Your task to perform on an android device: Go to Google maps Image 0: 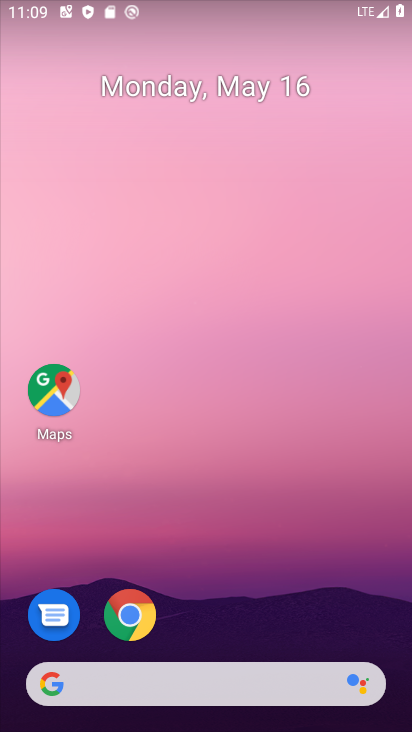
Step 0: drag from (268, 527) to (335, 0)
Your task to perform on an android device: Go to Google maps Image 1: 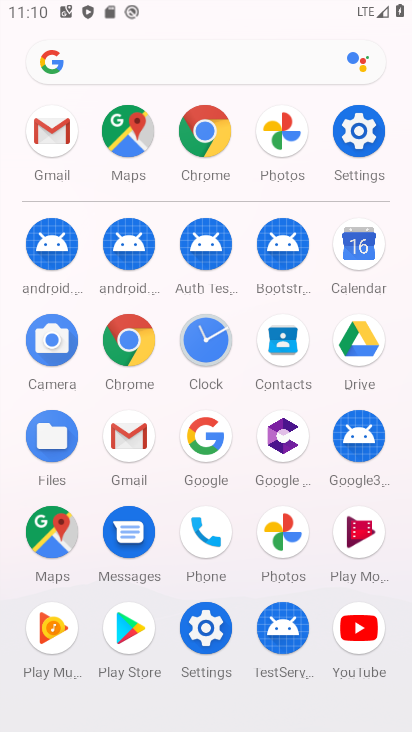
Step 1: click (63, 551)
Your task to perform on an android device: Go to Google maps Image 2: 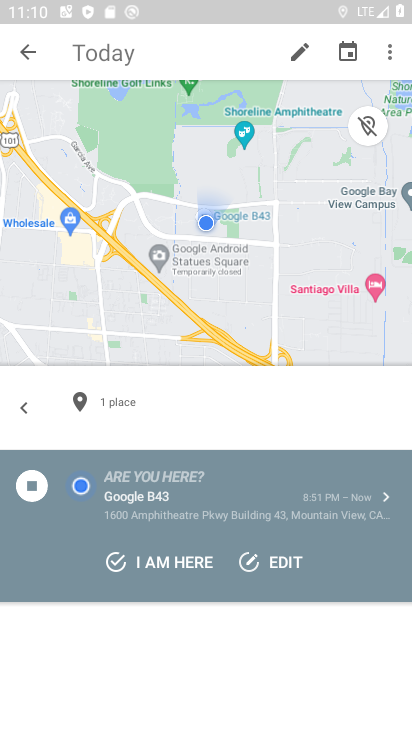
Step 2: click (33, 50)
Your task to perform on an android device: Go to Google maps Image 3: 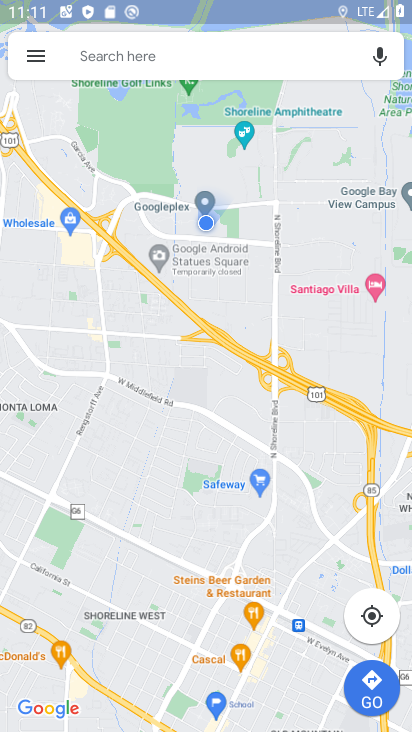
Step 3: task complete